Your task to perform on an android device: Go to calendar. Show me events next week Image 0: 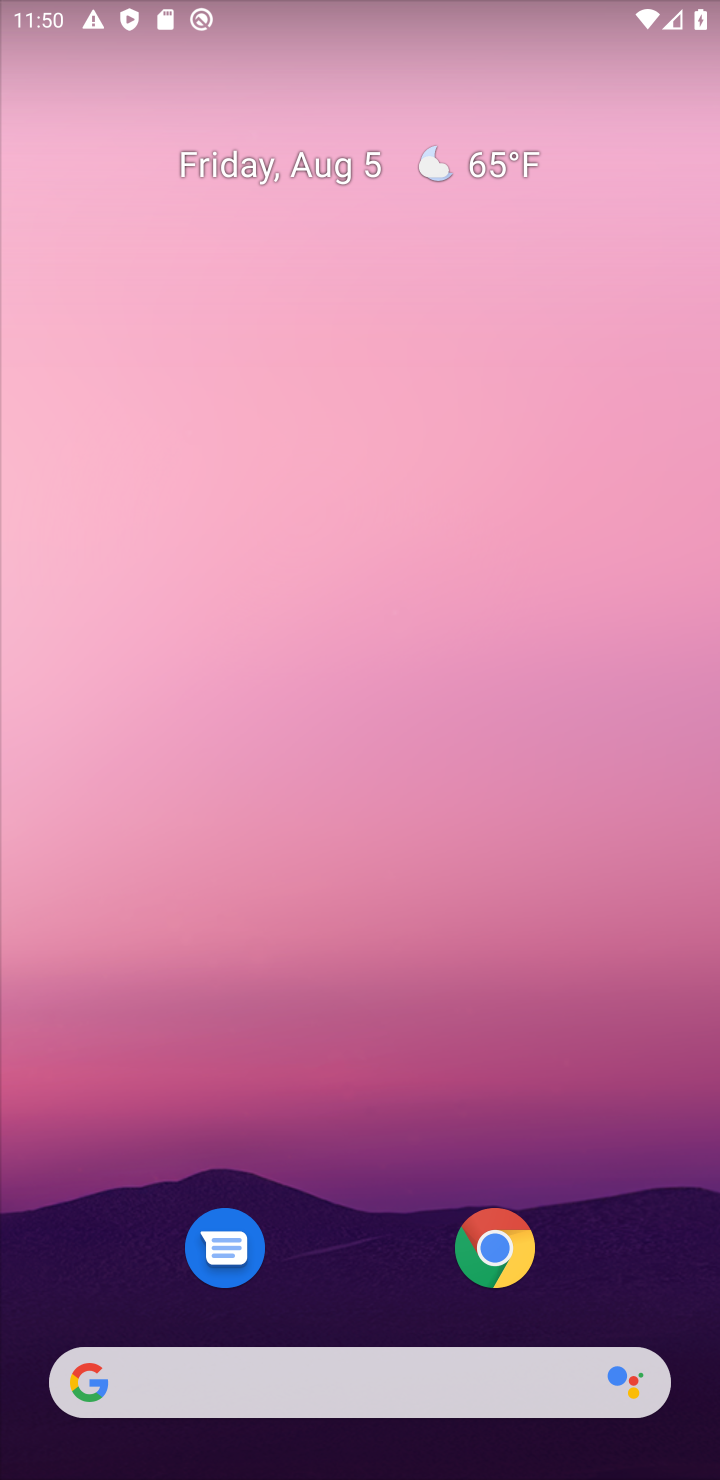
Step 0: press home button
Your task to perform on an android device: Go to calendar. Show me events next week Image 1: 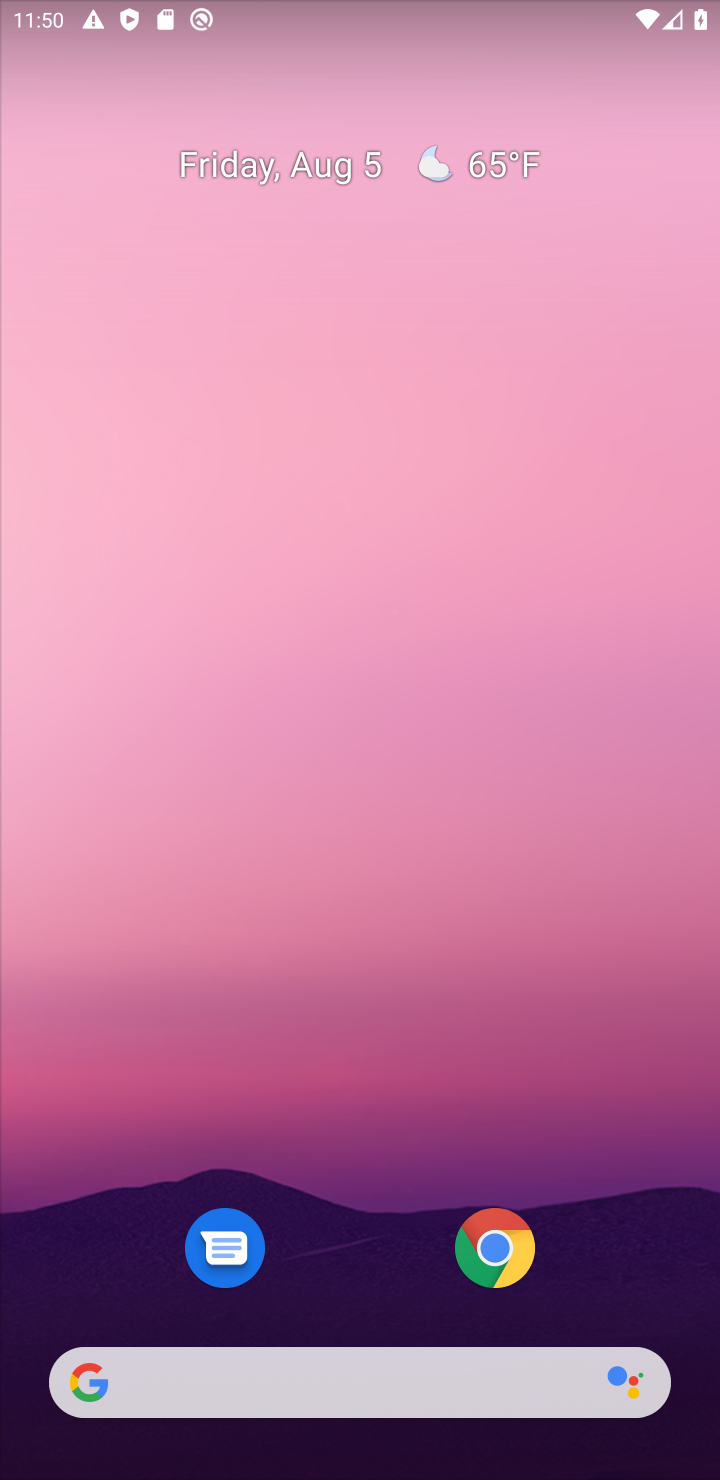
Step 1: drag from (364, 1253) to (362, 172)
Your task to perform on an android device: Go to calendar. Show me events next week Image 2: 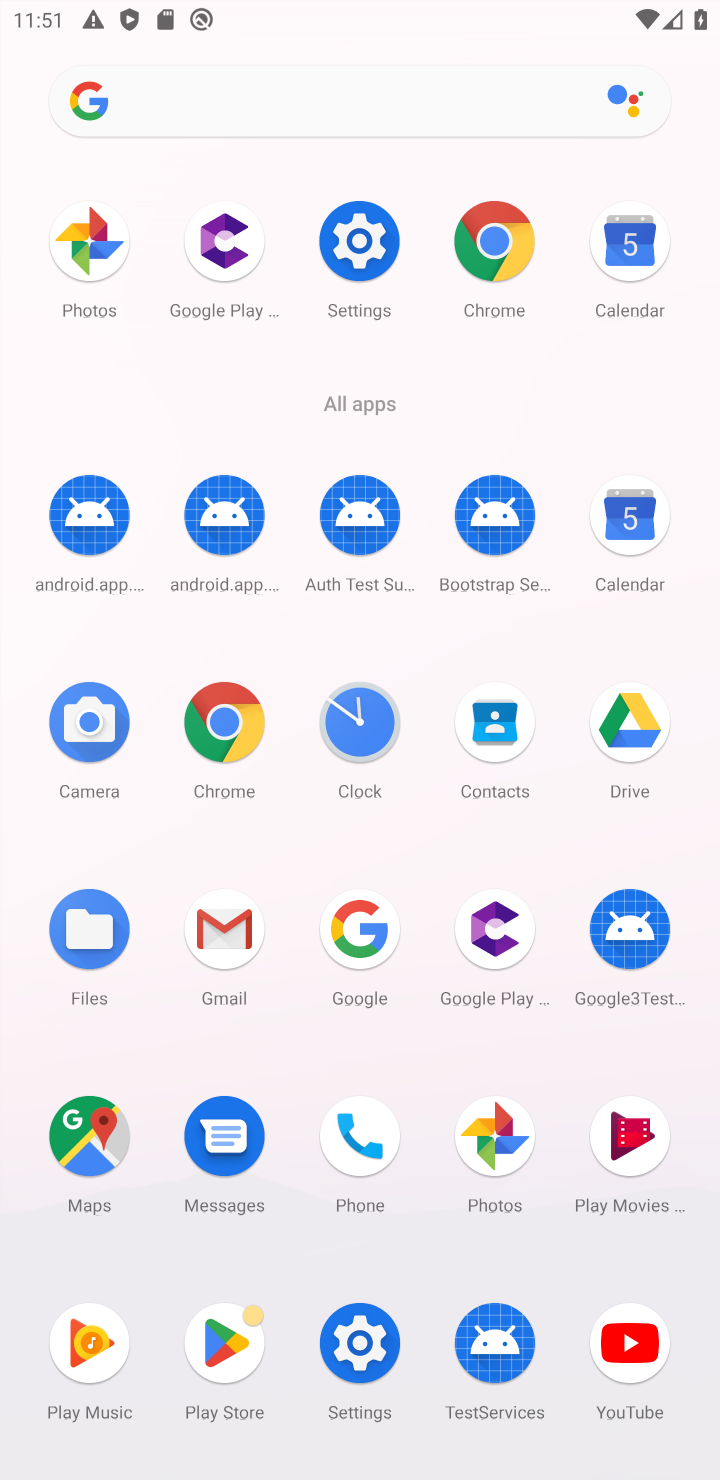
Step 2: click (622, 509)
Your task to perform on an android device: Go to calendar. Show me events next week Image 3: 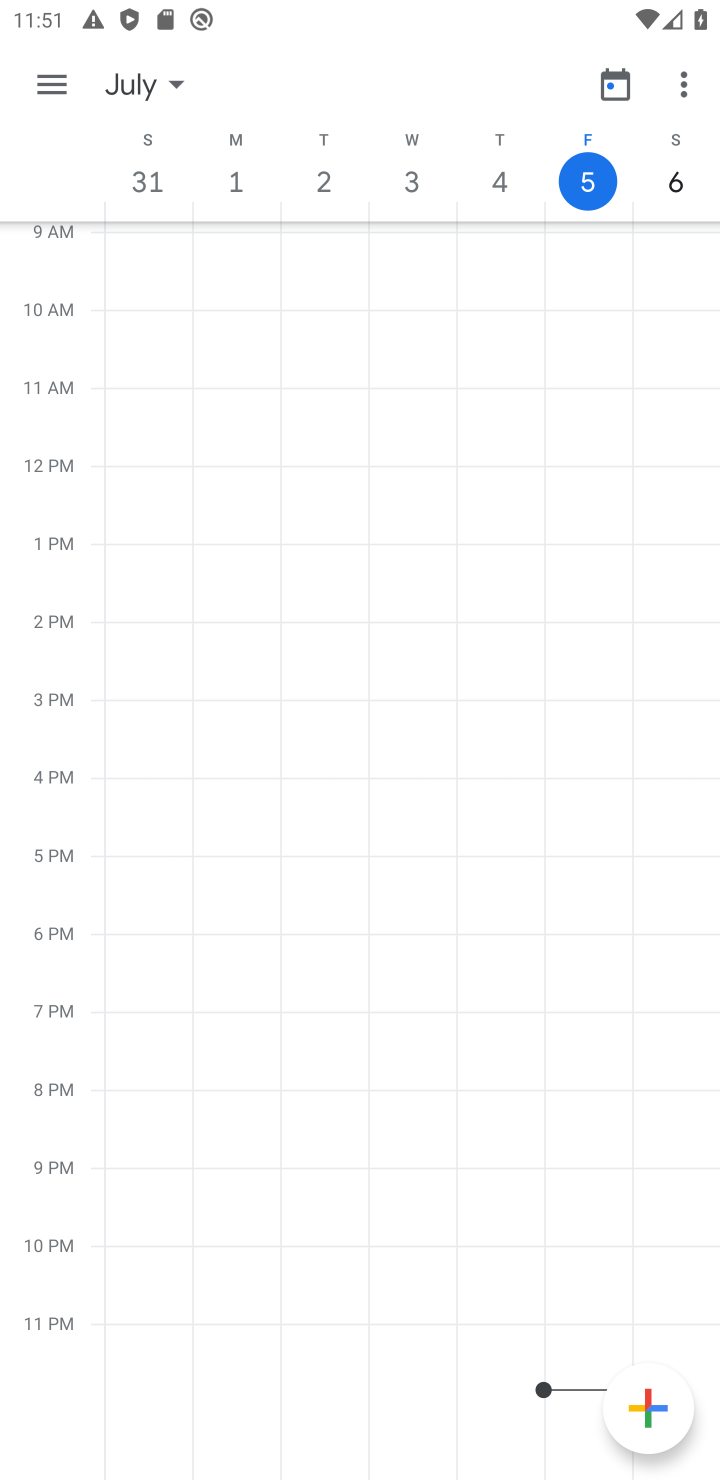
Step 3: drag from (644, 165) to (114, 153)
Your task to perform on an android device: Go to calendar. Show me events next week Image 4: 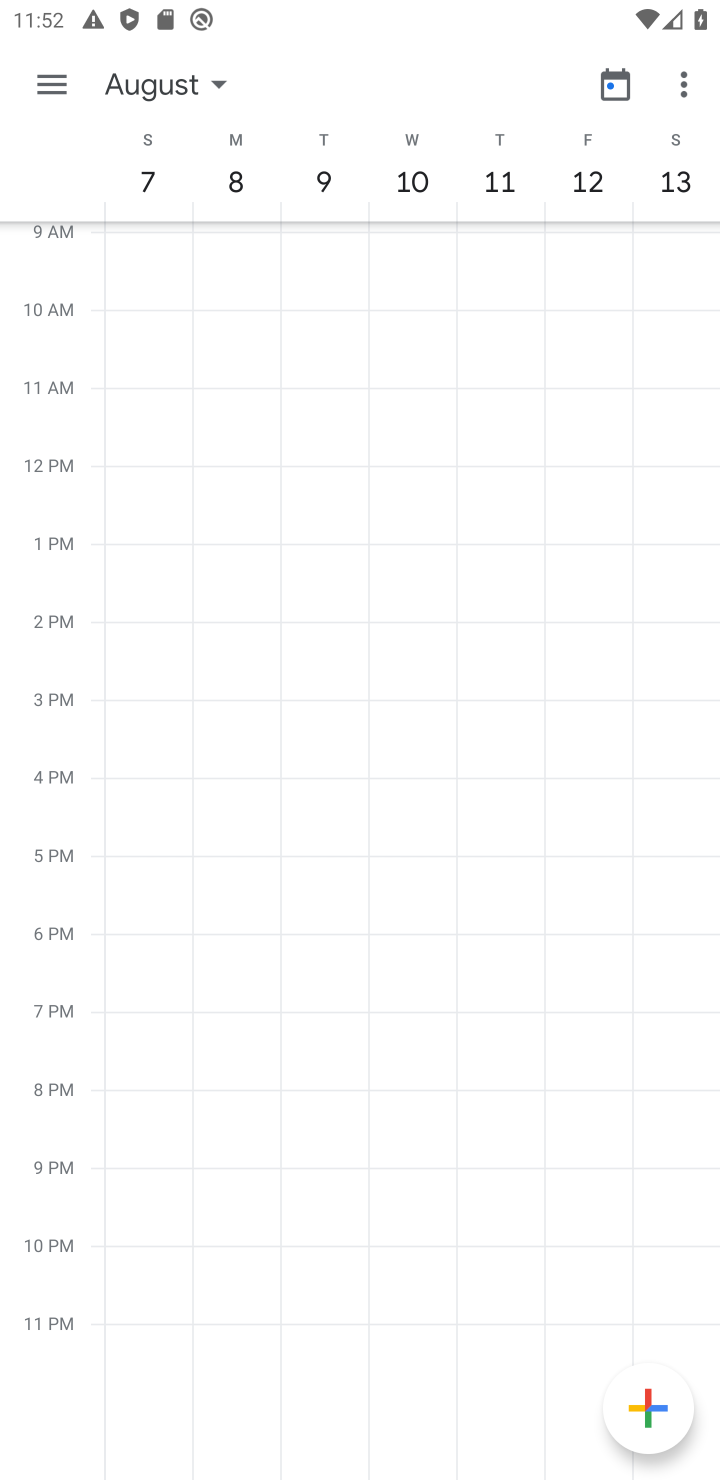
Step 4: click (44, 79)
Your task to perform on an android device: Go to calendar. Show me events next week Image 5: 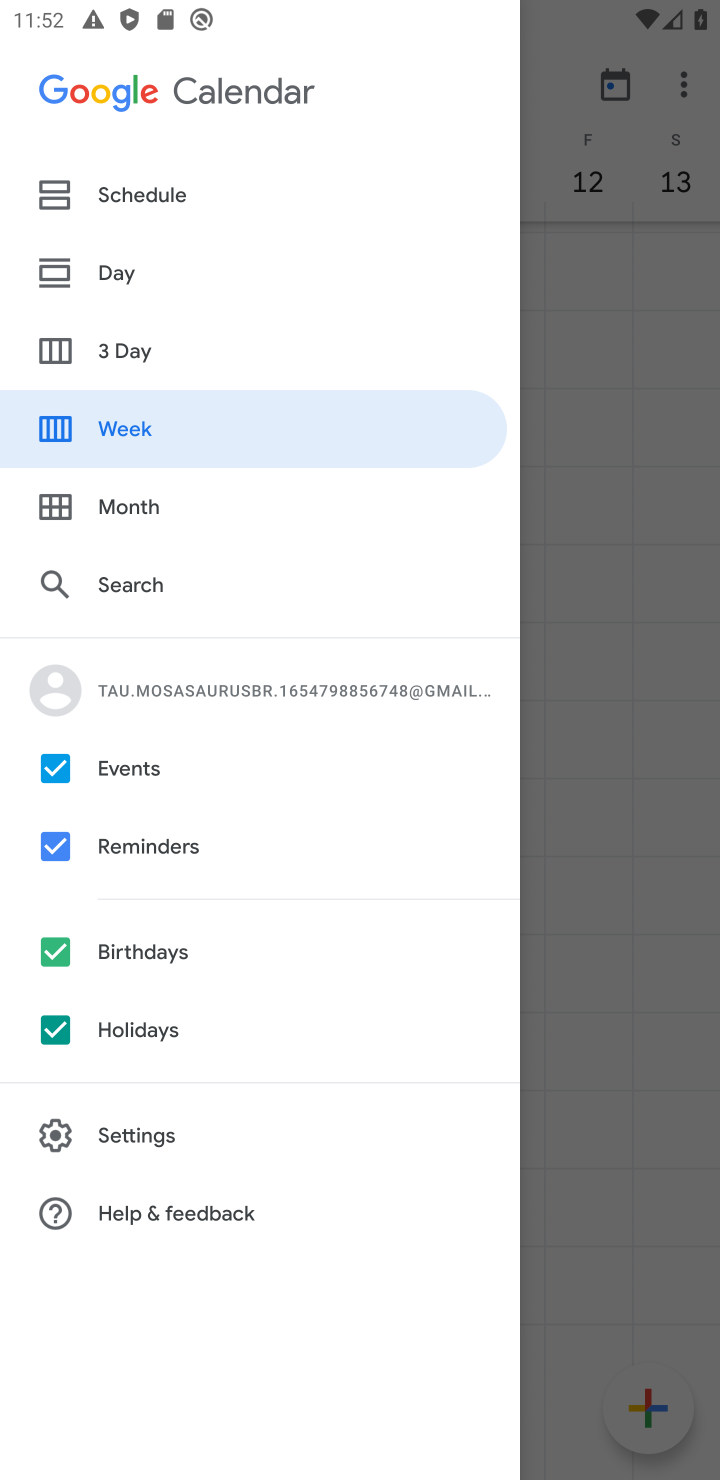
Step 5: click (61, 1033)
Your task to perform on an android device: Go to calendar. Show me events next week Image 6: 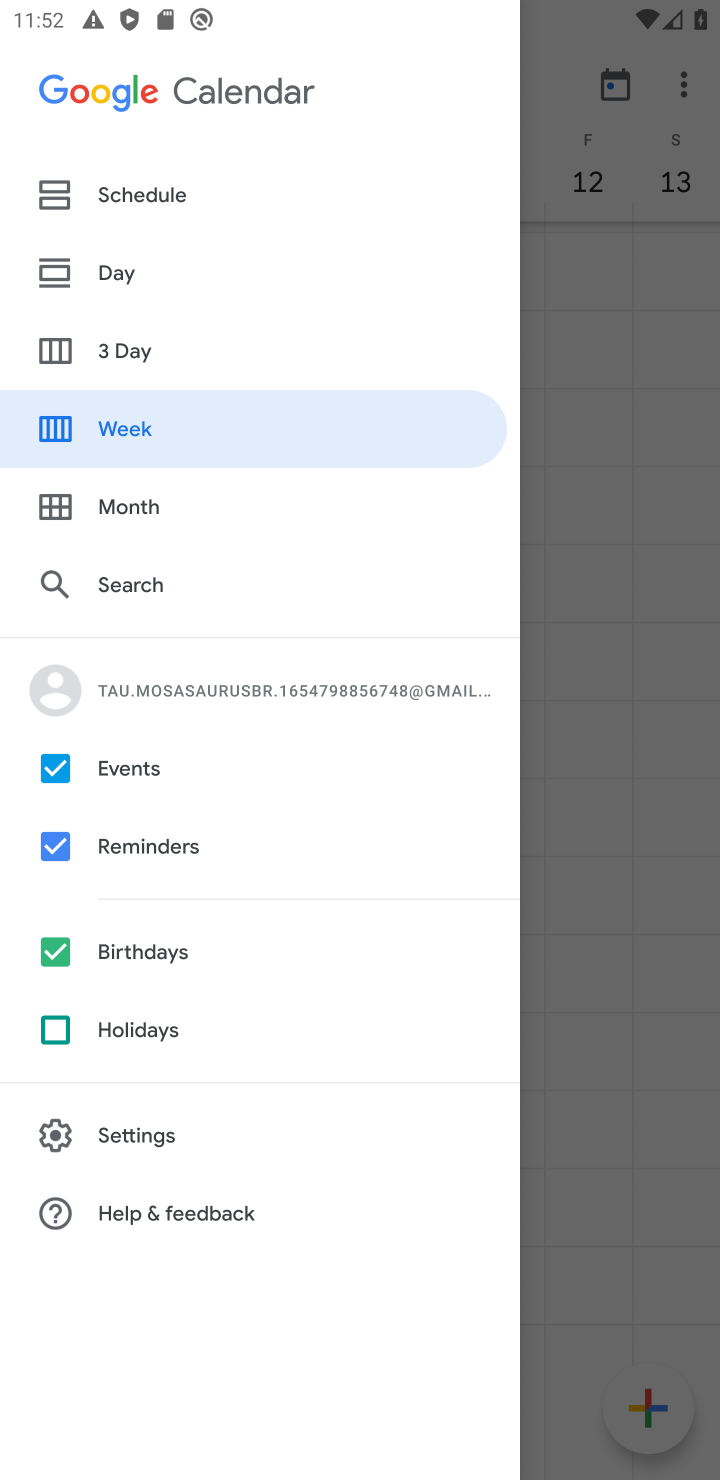
Step 6: click (58, 945)
Your task to perform on an android device: Go to calendar. Show me events next week Image 7: 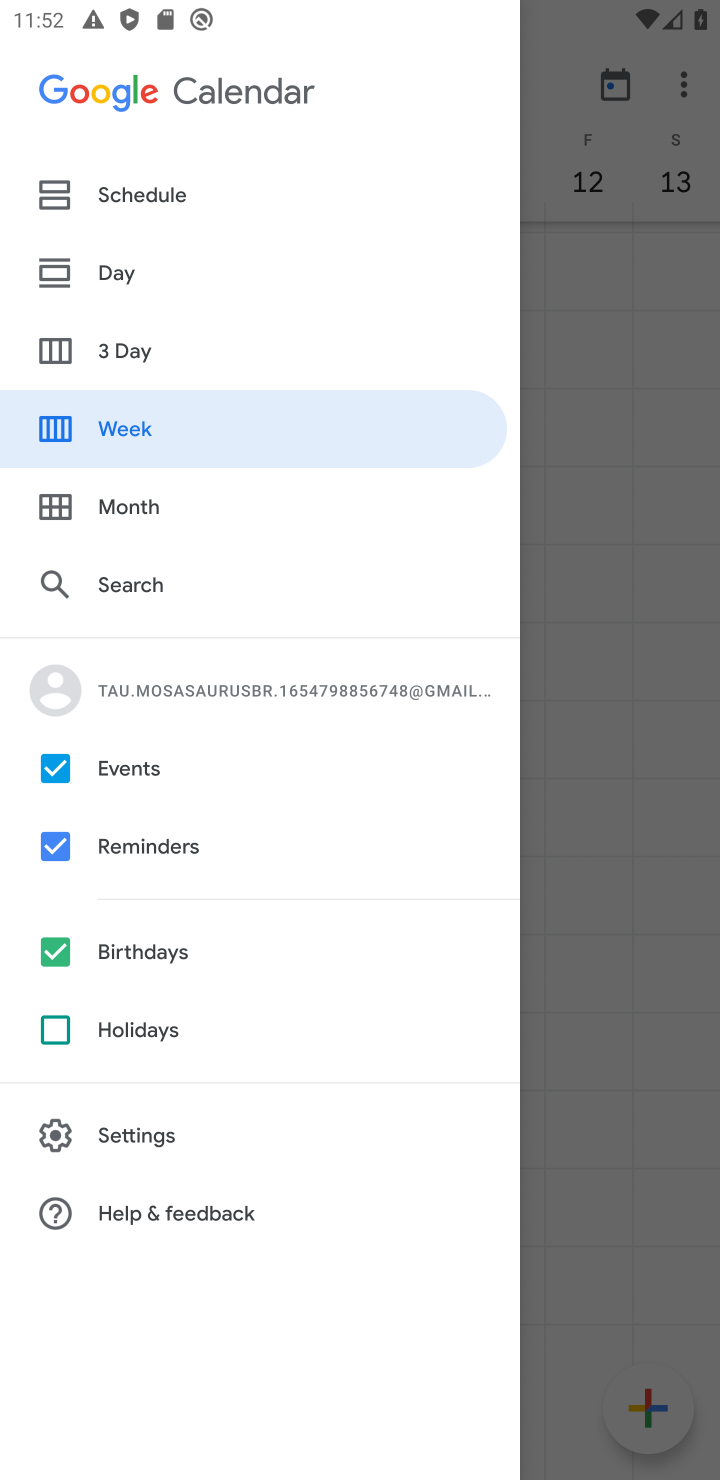
Step 7: click (56, 847)
Your task to perform on an android device: Go to calendar. Show me events next week Image 8: 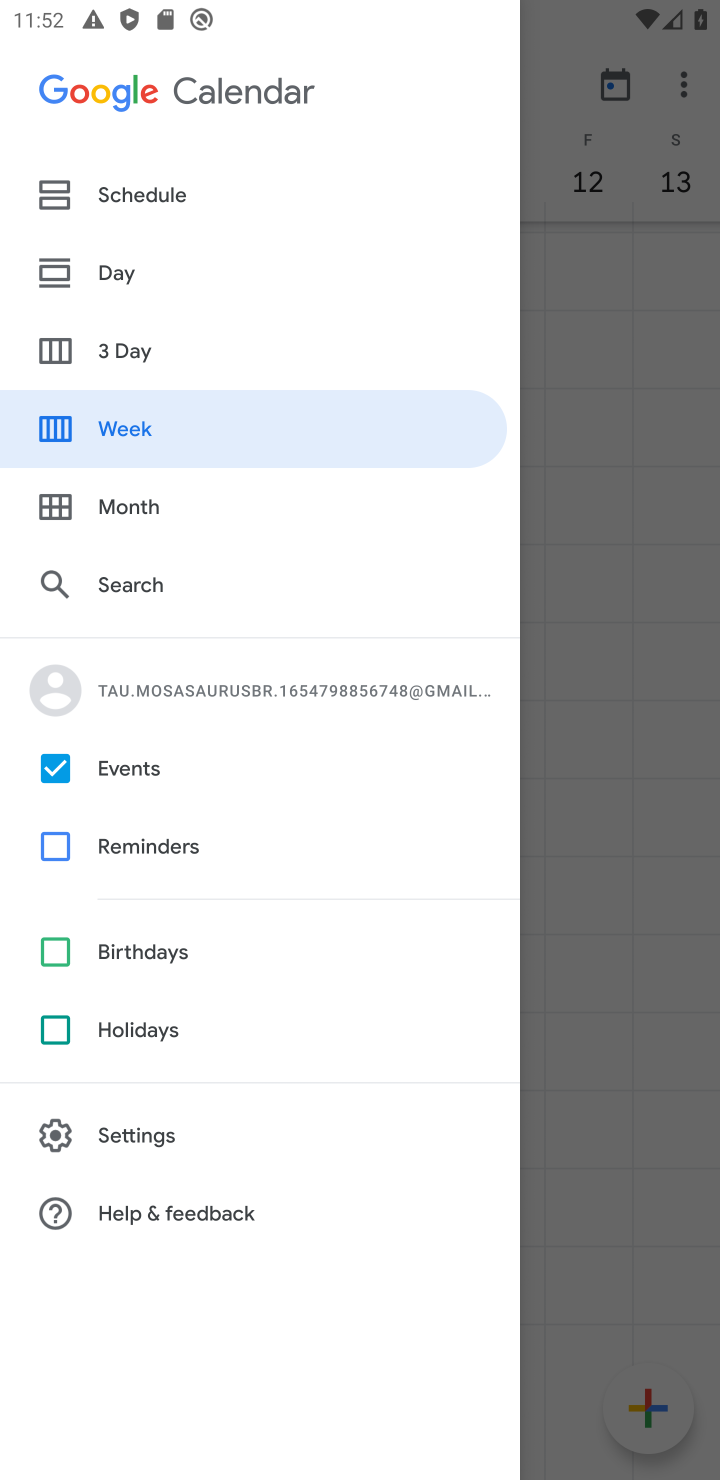
Step 8: click (110, 171)
Your task to perform on an android device: Go to calendar. Show me events next week Image 9: 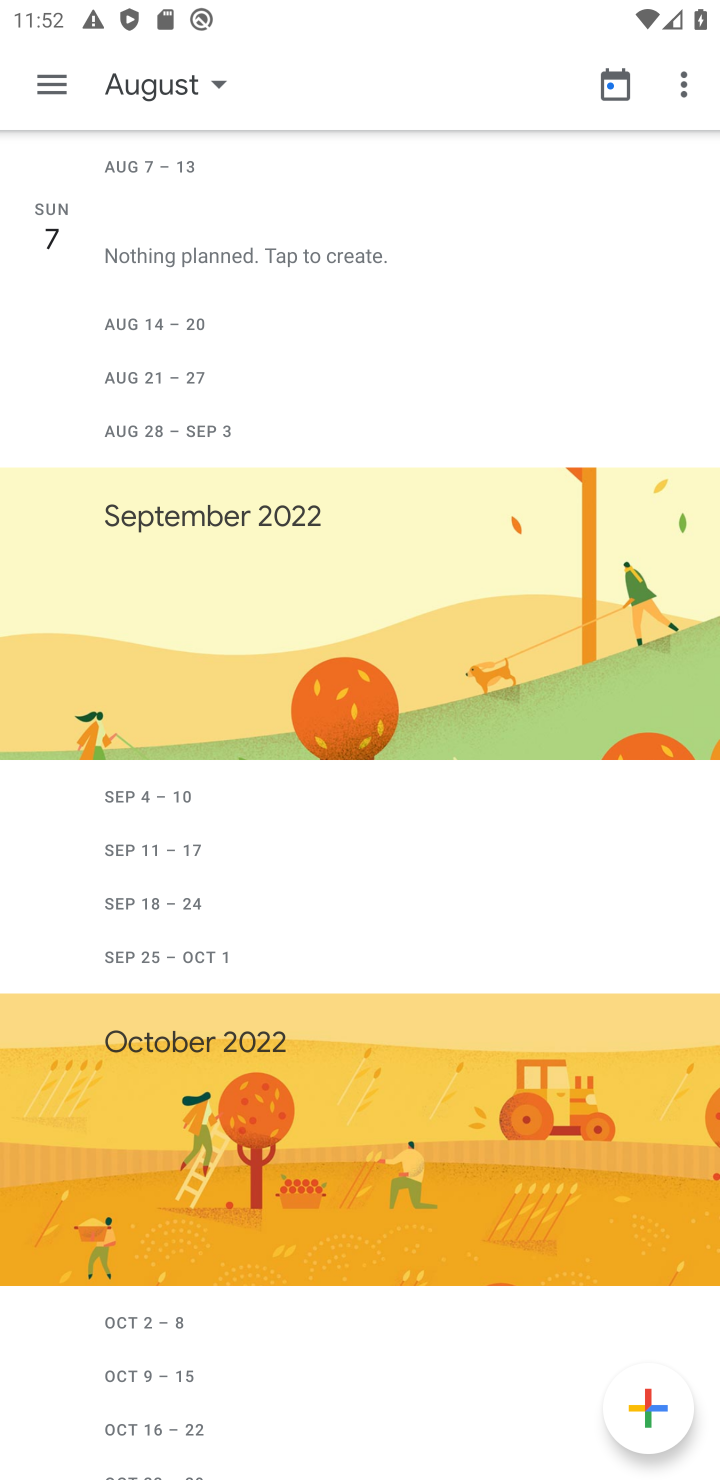
Step 9: click (49, 90)
Your task to perform on an android device: Go to calendar. Show me events next week Image 10: 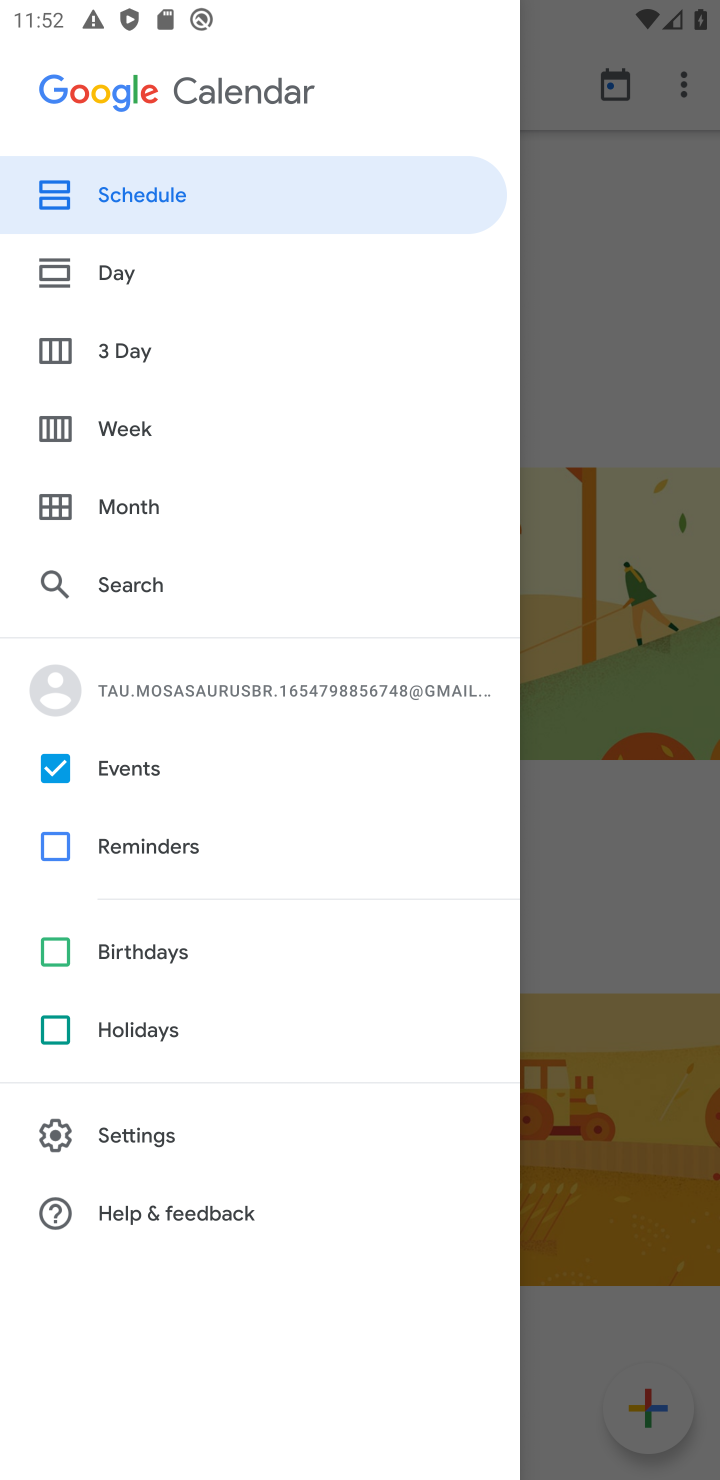
Step 10: click (136, 422)
Your task to perform on an android device: Go to calendar. Show me events next week Image 11: 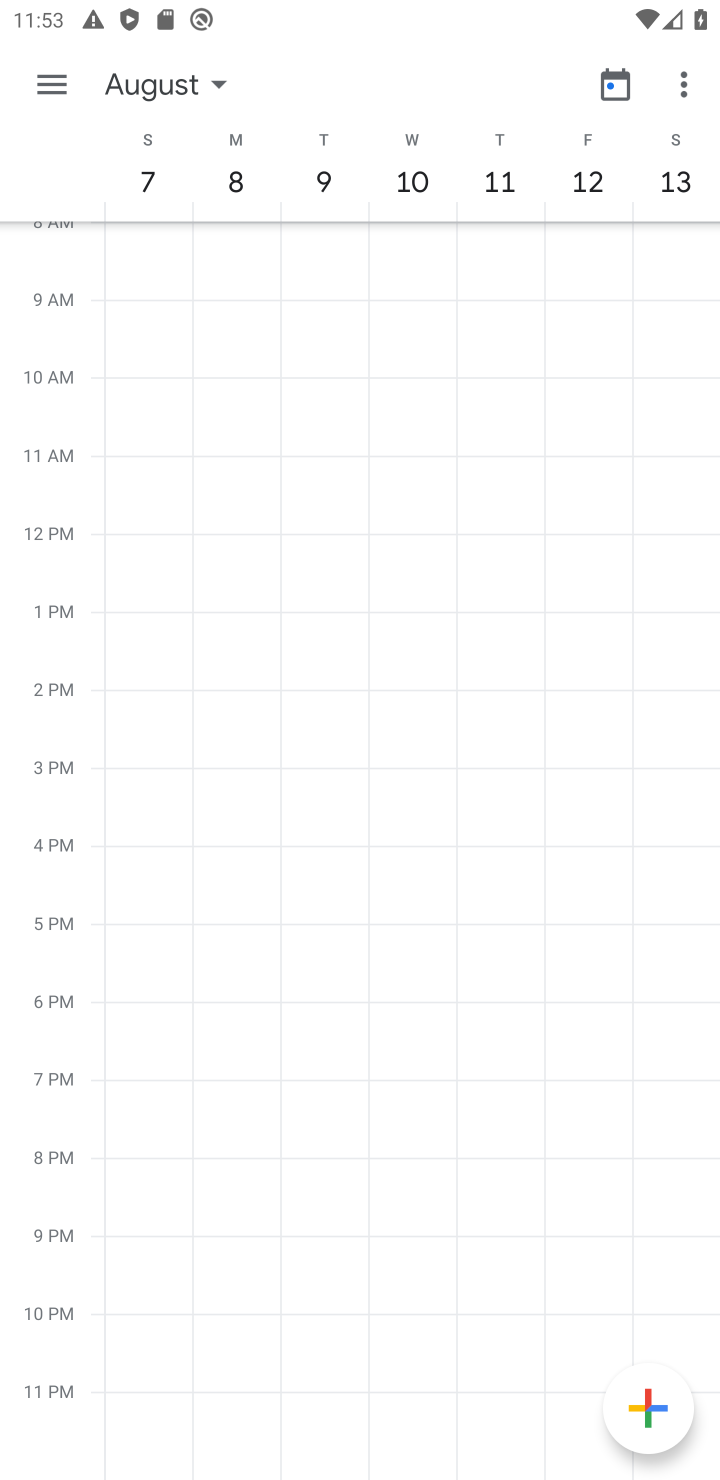
Step 11: task complete